Your task to perform on an android device: Show me popular games on the Play Store Image 0: 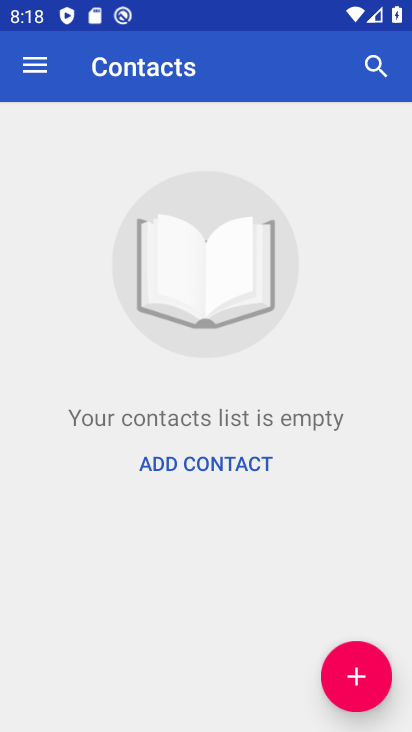
Step 0: press home button
Your task to perform on an android device: Show me popular games on the Play Store Image 1: 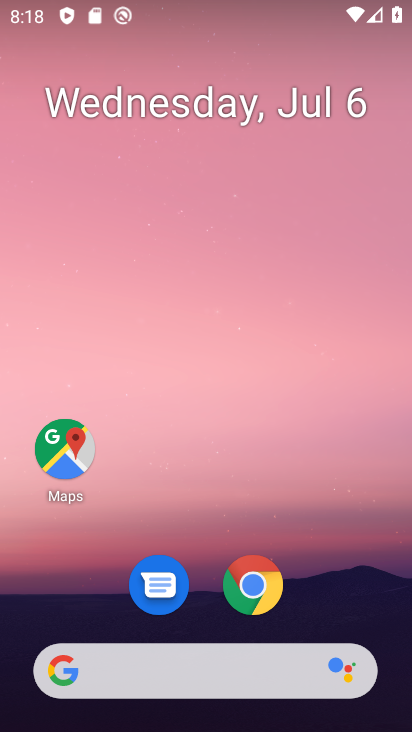
Step 1: drag from (195, 508) to (225, 0)
Your task to perform on an android device: Show me popular games on the Play Store Image 2: 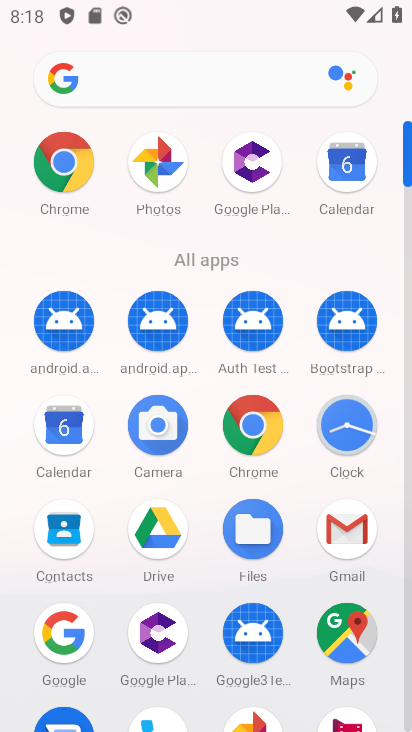
Step 2: drag from (201, 590) to (217, 161)
Your task to perform on an android device: Show me popular games on the Play Store Image 3: 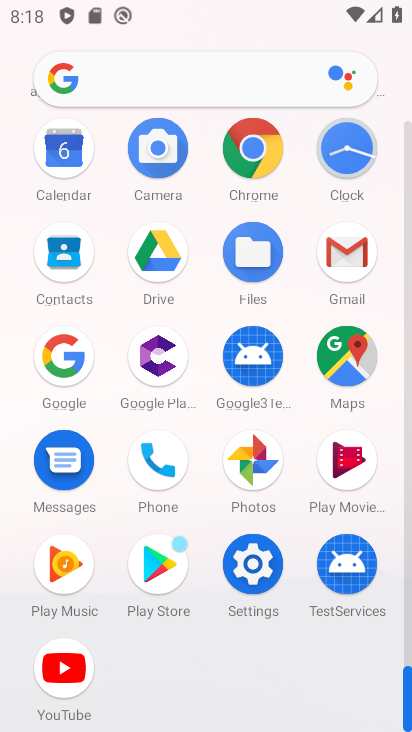
Step 3: click (168, 564)
Your task to perform on an android device: Show me popular games on the Play Store Image 4: 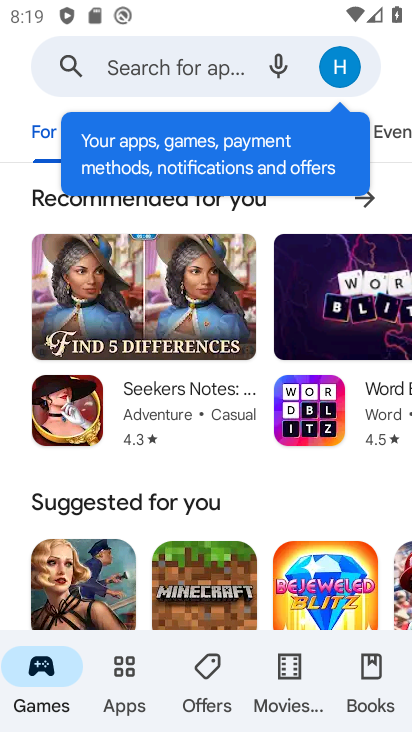
Step 4: drag from (172, 551) to (193, 253)
Your task to perform on an android device: Show me popular games on the Play Store Image 5: 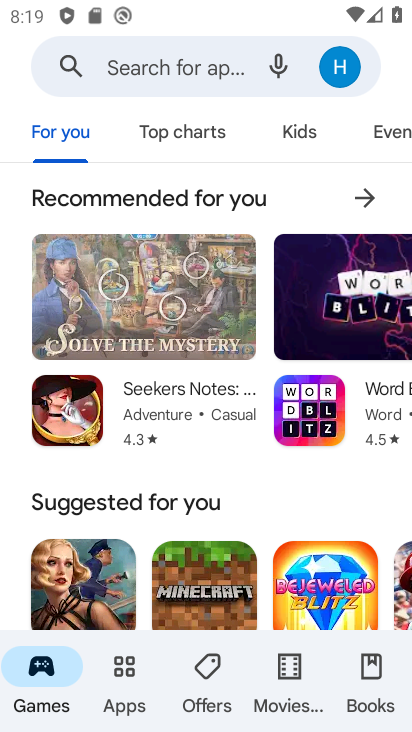
Step 5: drag from (188, 565) to (202, 174)
Your task to perform on an android device: Show me popular games on the Play Store Image 6: 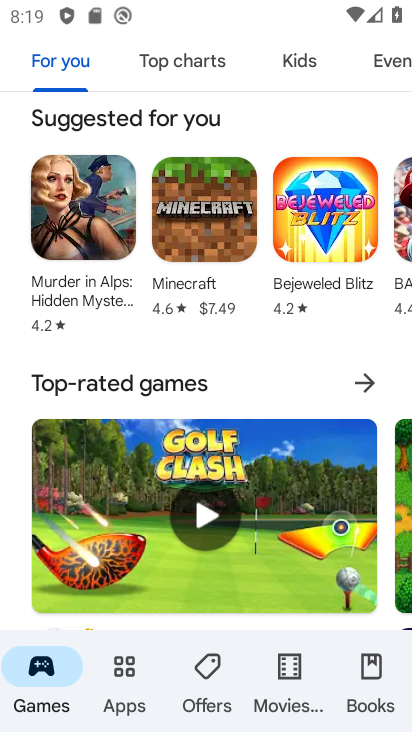
Step 6: drag from (226, 514) to (223, 189)
Your task to perform on an android device: Show me popular games on the Play Store Image 7: 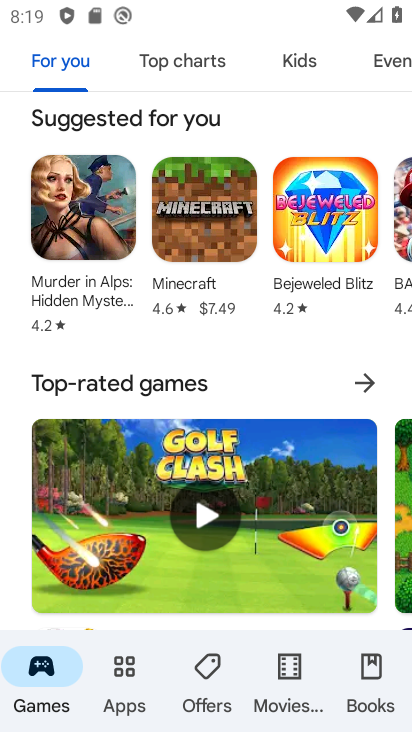
Step 7: click (123, 667)
Your task to perform on an android device: Show me popular games on the Play Store Image 8: 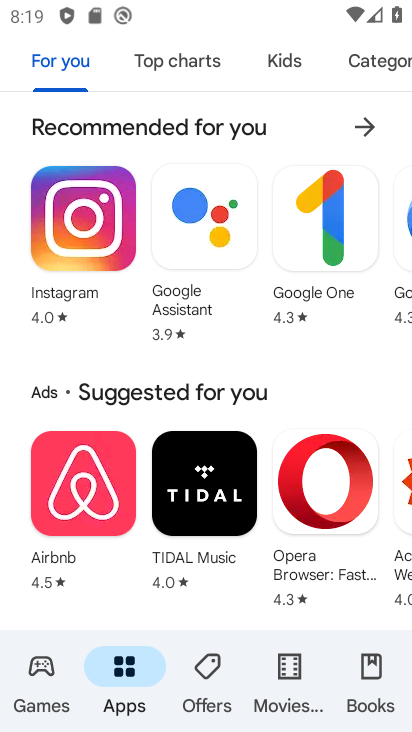
Step 8: click (33, 667)
Your task to perform on an android device: Show me popular games on the Play Store Image 9: 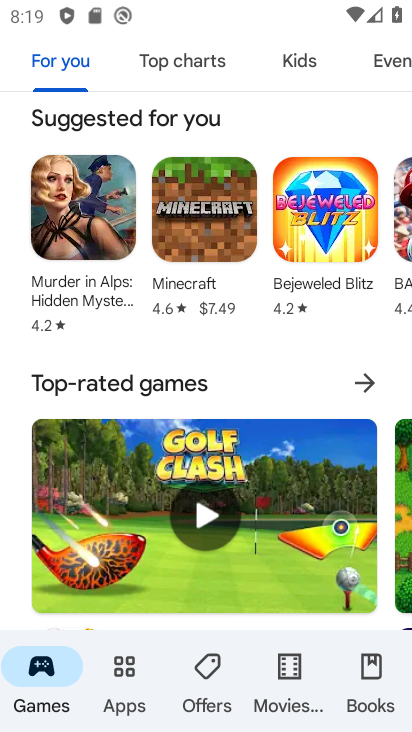
Step 9: drag from (291, 506) to (315, 153)
Your task to perform on an android device: Show me popular games on the Play Store Image 10: 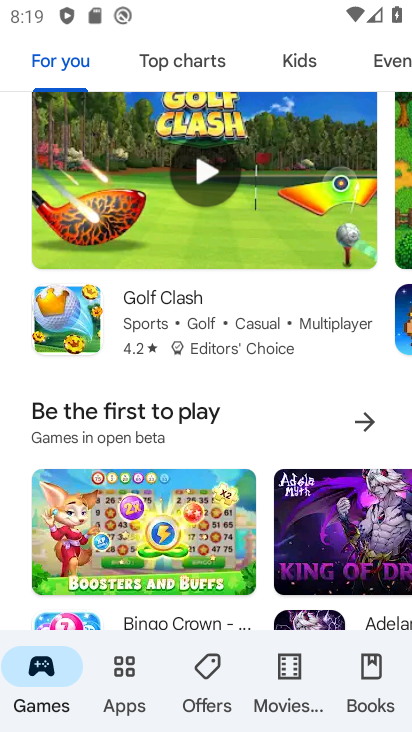
Step 10: drag from (232, 506) to (221, 86)
Your task to perform on an android device: Show me popular games on the Play Store Image 11: 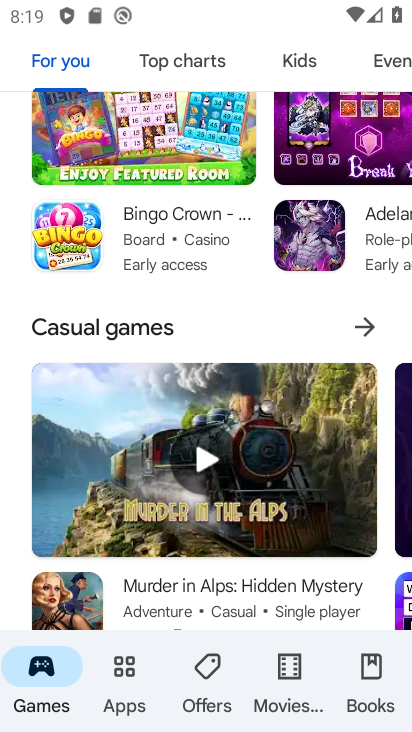
Step 11: drag from (283, 477) to (261, 124)
Your task to perform on an android device: Show me popular games on the Play Store Image 12: 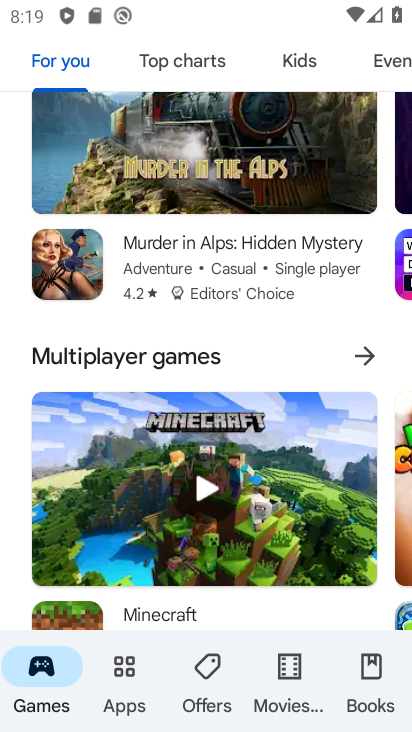
Step 12: drag from (238, 500) to (232, 155)
Your task to perform on an android device: Show me popular games on the Play Store Image 13: 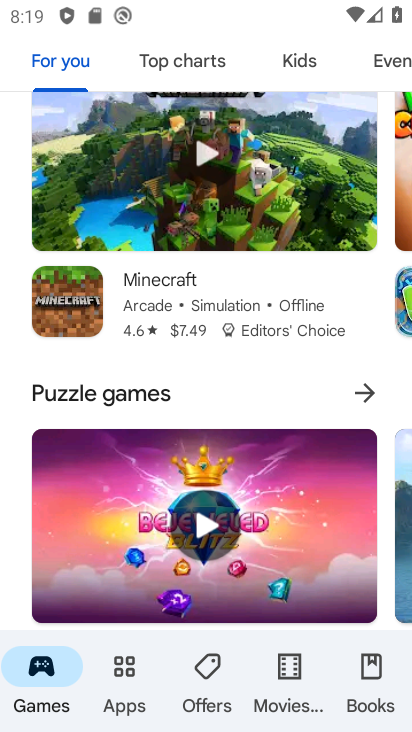
Step 13: drag from (256, 221) to (273, 641)
Your task to perform on an android device: Show me popular games on the Play Store Image 14: 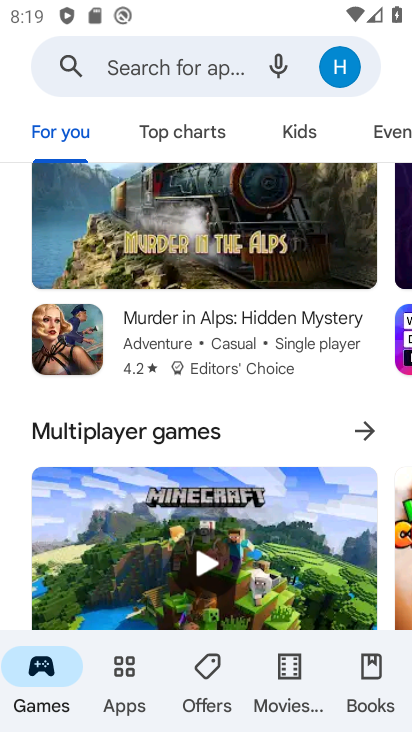
Step 14: drag from (260, 359) to (266, 662)
Your task to perform on an android device: Show me popular games on the Play Store Image 15: 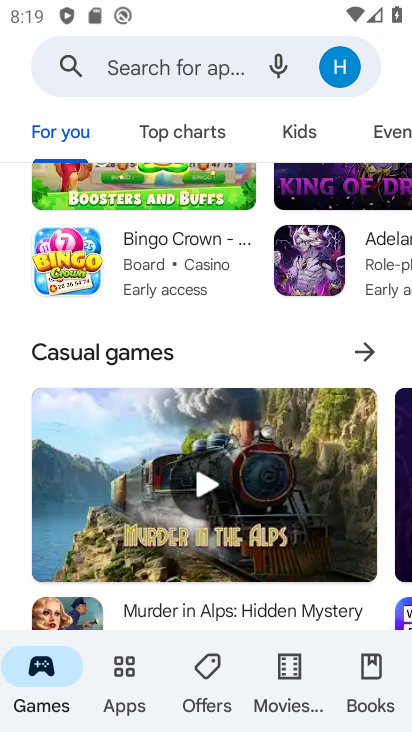
Step 15: drag from (240, 355) to (258, 705)
Your task to perform on an android device: Show me popular games on the Play Store Image 16: 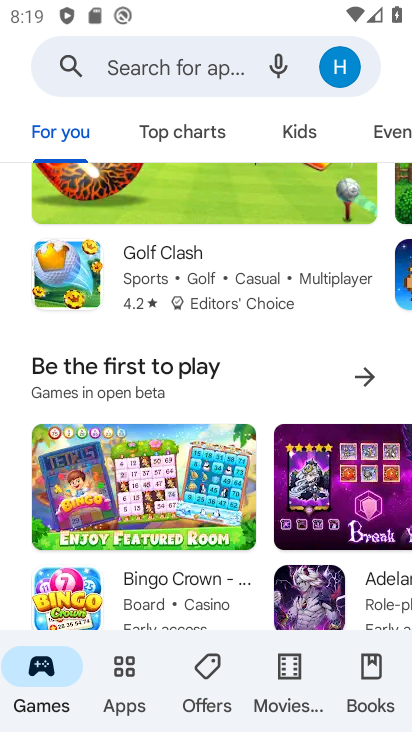
Step 16: drag from (273, 351) to (230, 712)
Your task to perform on an android device: Show me popular games on the Play Store Image 17: 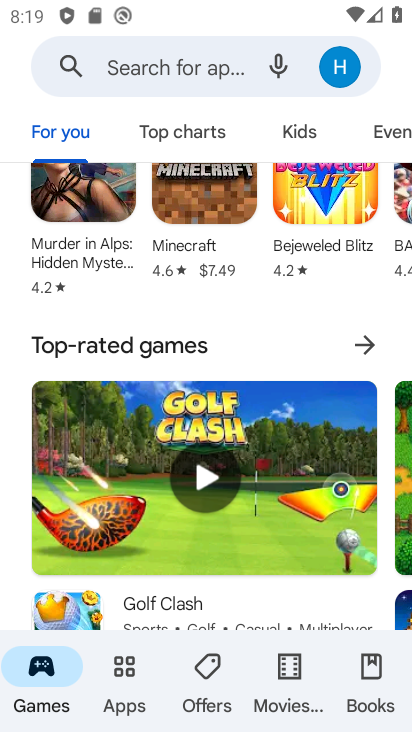
Step 17: drag from (302, 302) to (265, 607)
Your task to perform on an android device: Show me popular games on the Play Store Image 18: 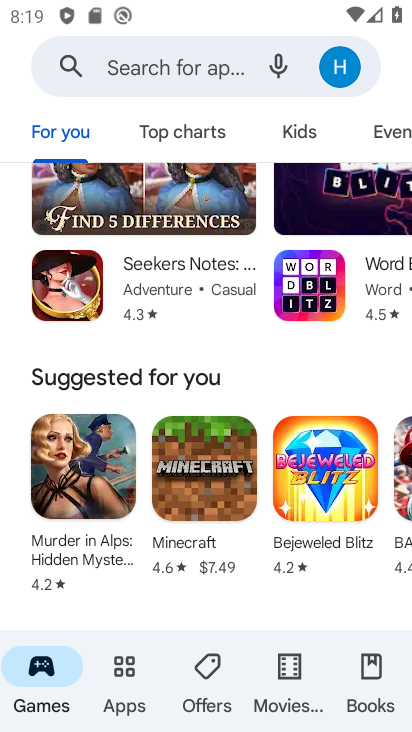
Step 18: drag from (238, 329) to (235, 615)
Your task to perform on an android device: Show me popular games on the Play Store Image 19: 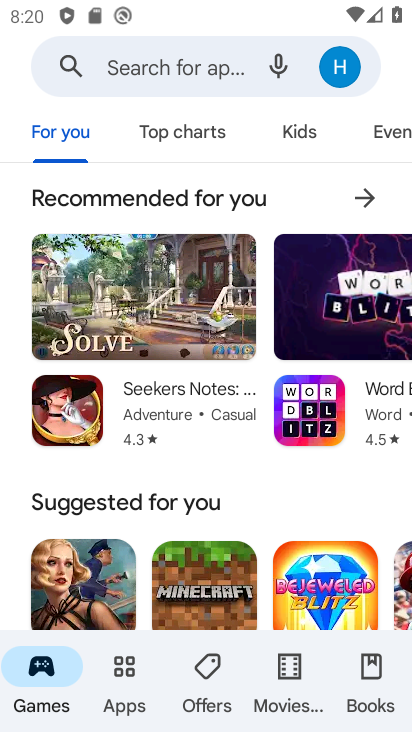
Step 19: drag from (271, 499) to (266, 102)
Your task to perform on an android device: Show me popular games on the Play Store Image 20: 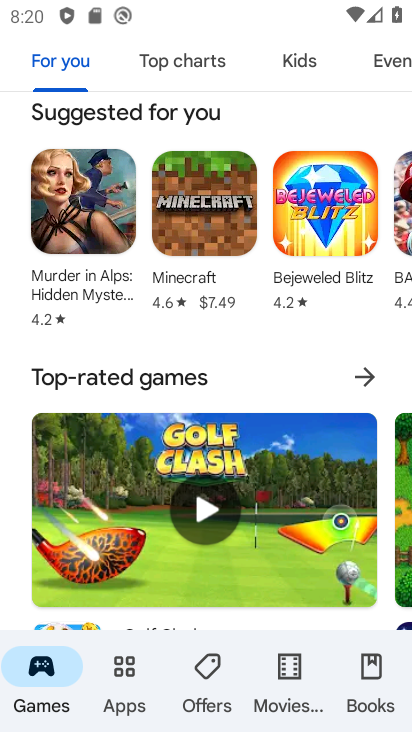
Step 20: click (361, 375)
Your task to perform on an android device: Show me popular games on the Play Store Image 21: 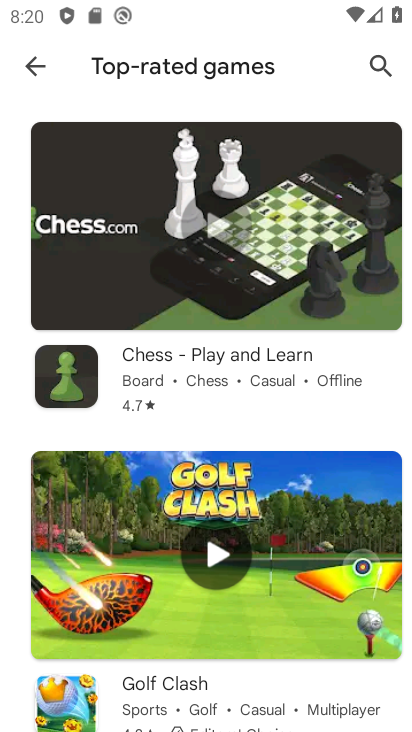
Step 21: task complete